Your task to perform on an android device: check storage Image 0: 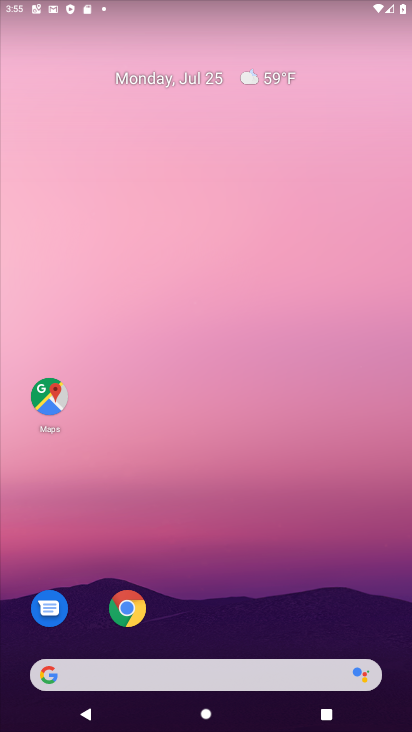
Step 0: drag from (243, 664) to (212, 6)
Your task to perform on an android device: check storage Image 1: 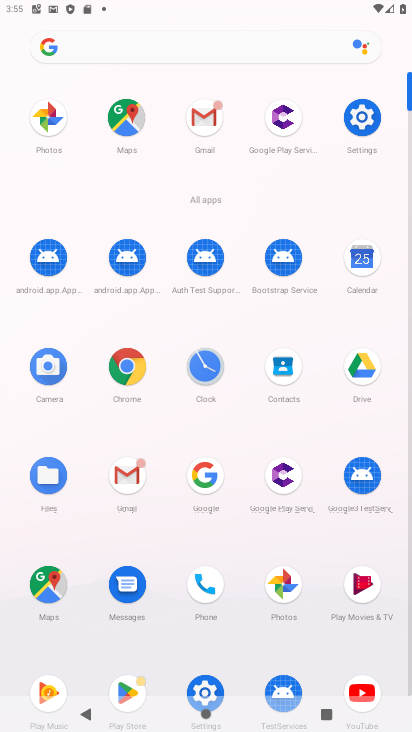
Step 1: click (354, 135)
Your task to perform on an android device: check storage Image 2: 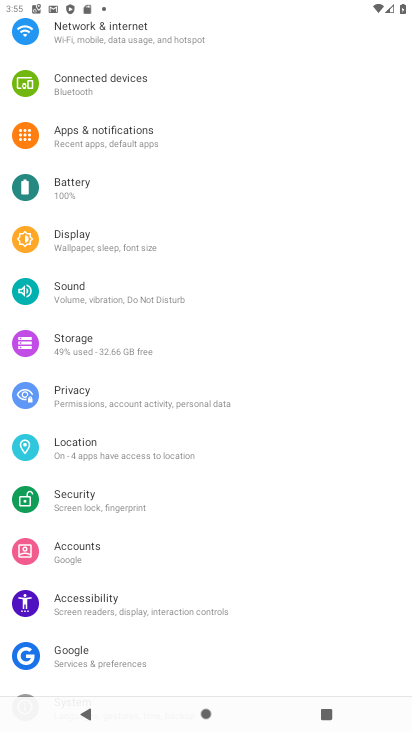
Step 2: click (88, 351)
Your task to perform on an android device: check storage Image 3: 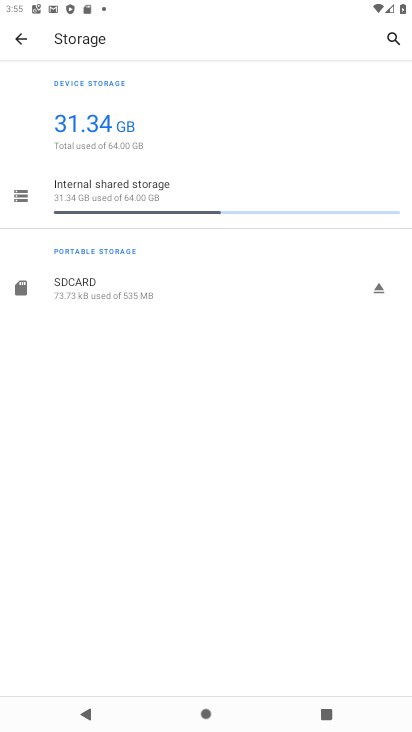
Step 3: task complete